Your task to perform on an android device: What's on my calendar tomorrow? Image 0: 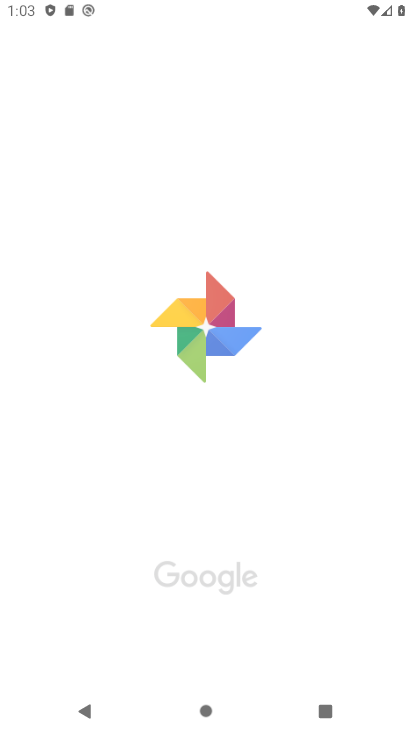
Step 0: drag from (251, 557) to (217, 230)
Your task to perform on an android device: What's on my calendar tomorrow? Image 1: 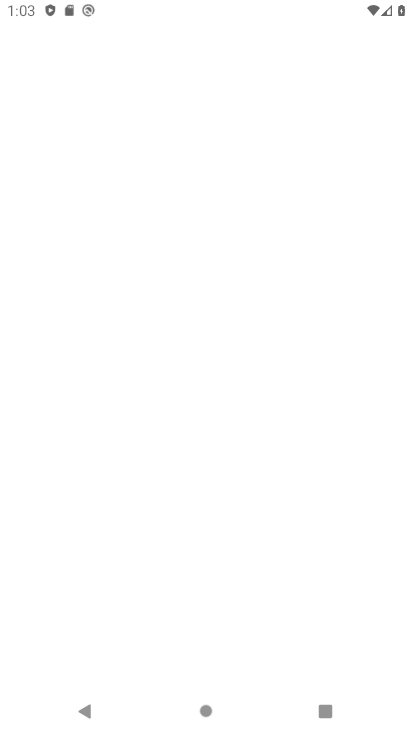
Step 1: press home button
Your task to perform on an android device: What's on my calendar tomorrow? Image 2: 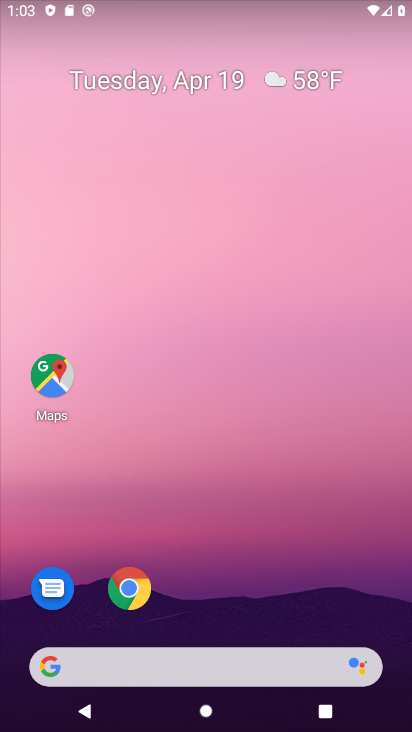
Step 2: drag from (185, 621) to (194, 257)
Your task to perform on an android device: What's on my calendar tomorrow? Image 3: 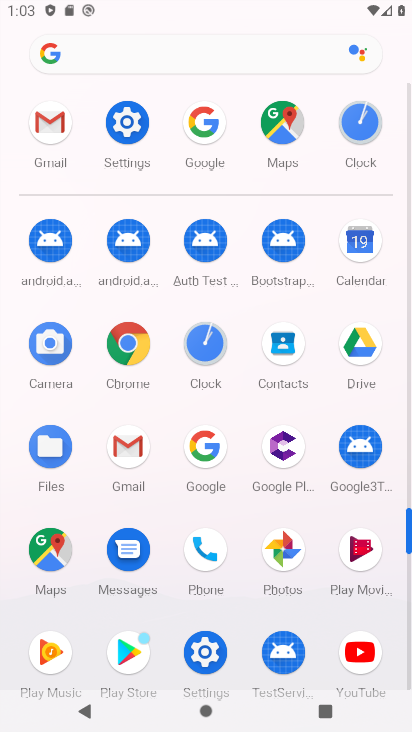
Step 3: click (345, 263)
Your task to perform on an android device: What's on my calendar tomorrow? Image 4: 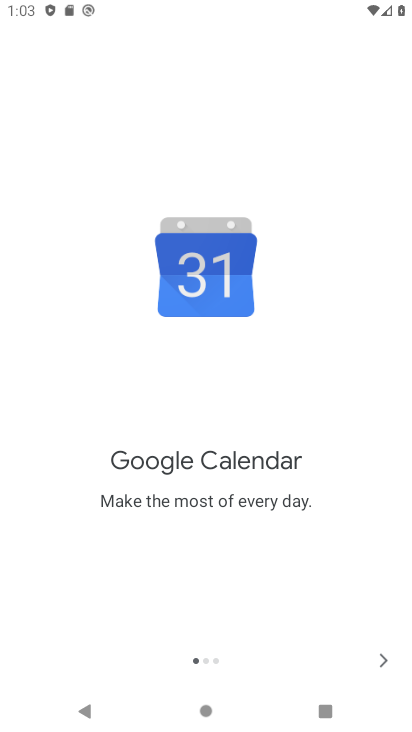
Step 4: click (380, 662)
Your task to perform on an android device: What's on my calendar tomorrow? Image 5: 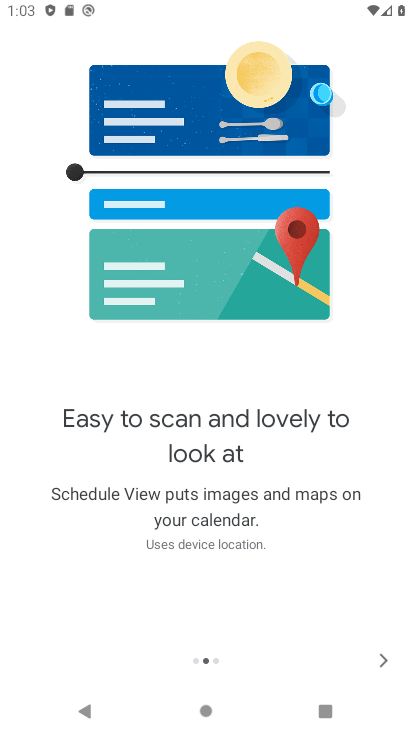
Step 5: click (380, 662)
Your task to perform on an android device: What's on my calendar tomorrow? Image 6: 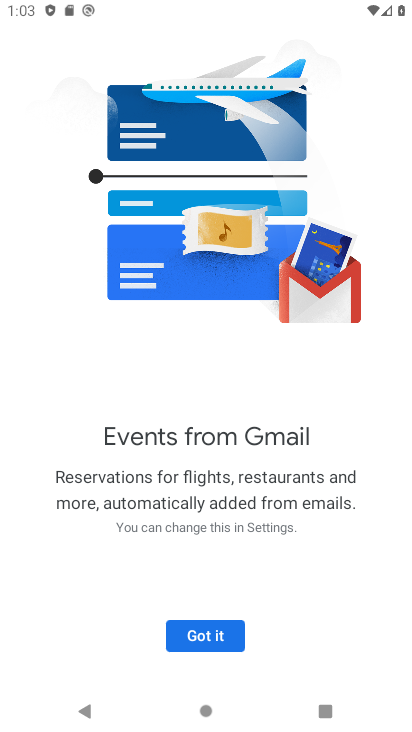
Step 6: click (217, 648)
Your task to perform on an android device: What's on my calendar tomorrow? Image 7: 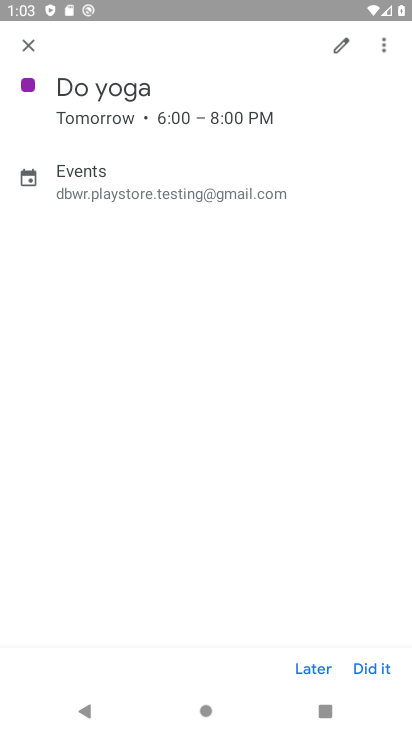
Step 7: click (27, 48)
Your task to perform on an android device: What's on my calendar tomorrow? Image 8: 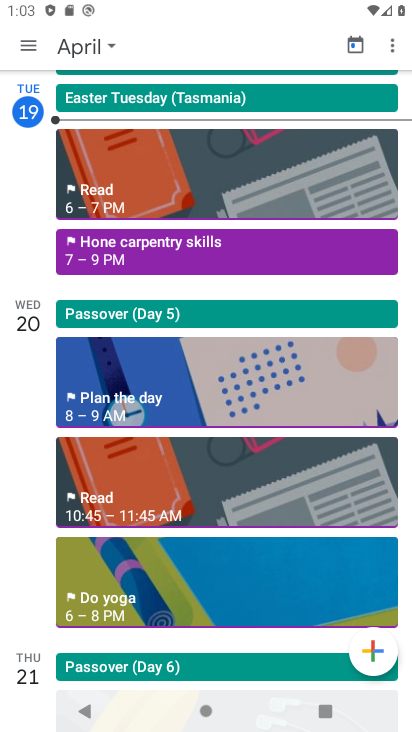
Step 8: click (99, 50)
Your task to perform on an android device: What's on my calendar tomorrow? Image 9: 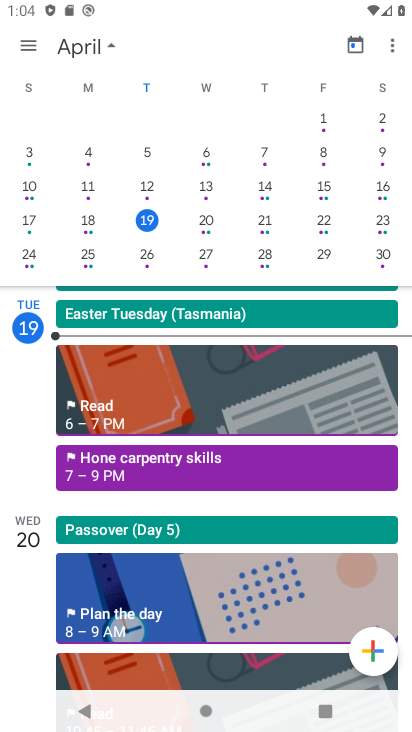
Step 9: click (205, 214)
Your task to perform on an android device: What's on my calendar tomorrow? Image 10: 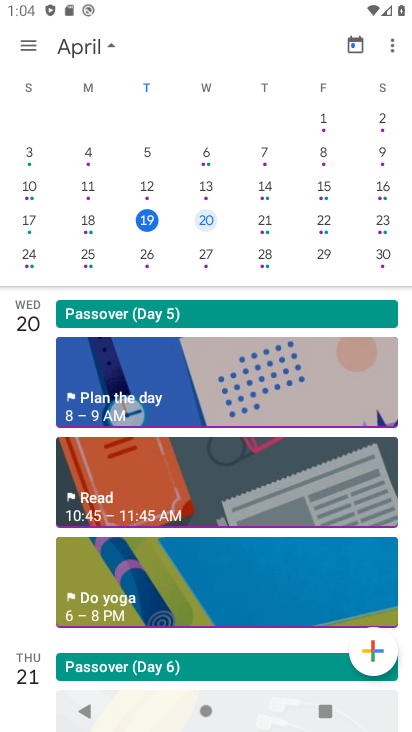
Step 10: click (202, 221)
Your task to perform on an android device: What's on my calendar tomorrow? Image 11: 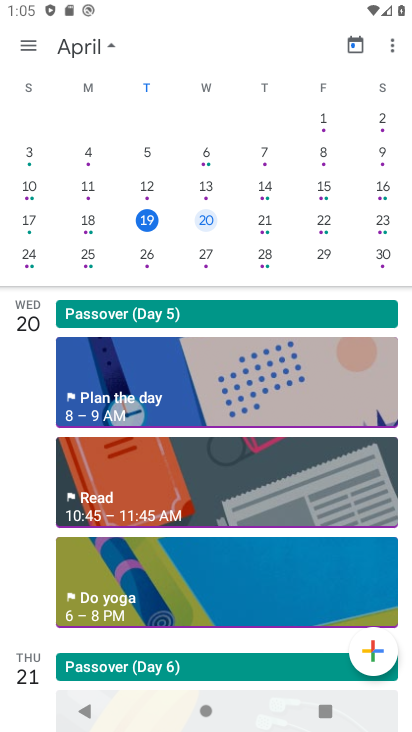
Step 11: click (212, 224)
Your task to perform on an android device: What's on my calendar tomorrow? Image 12: 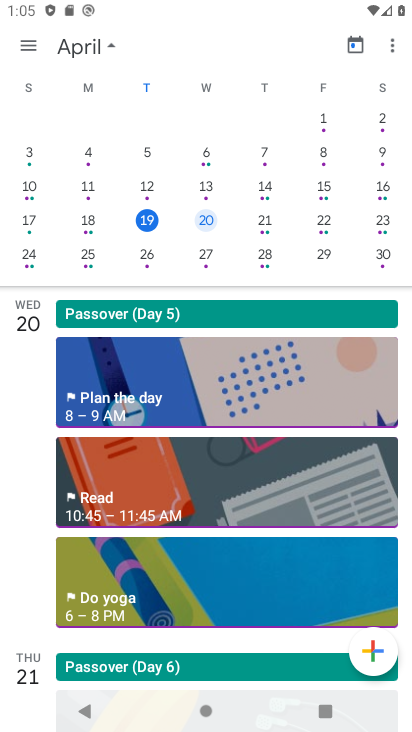
Step 12: task complete